Your task to perform on an android device: toggle show notifications on the lock screen Image 0: 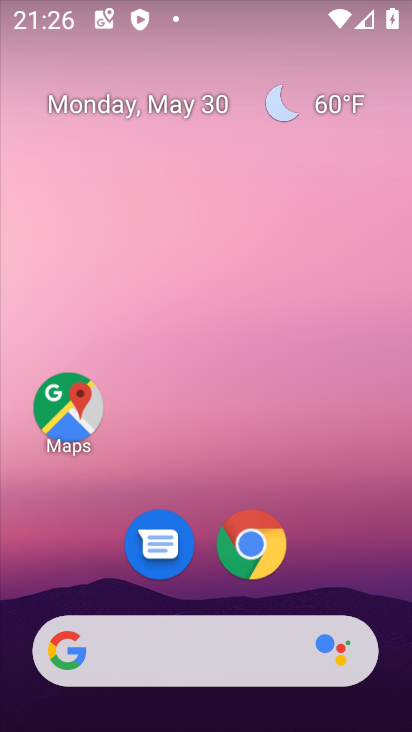
Step 0: drag from (337, 563) to (210, 138)
Your task to perform on an android device: toggle show notifications on the lock screen Image 1: 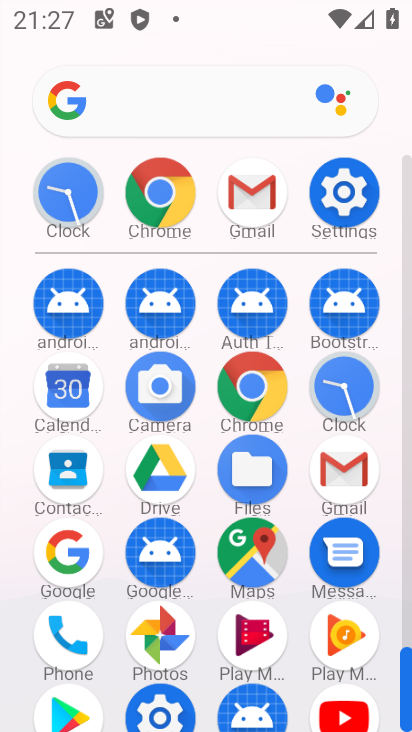
Step 1: click (345, 188)
Your task to perform on an android device: toggle show notifications on the lock screen Image 2: 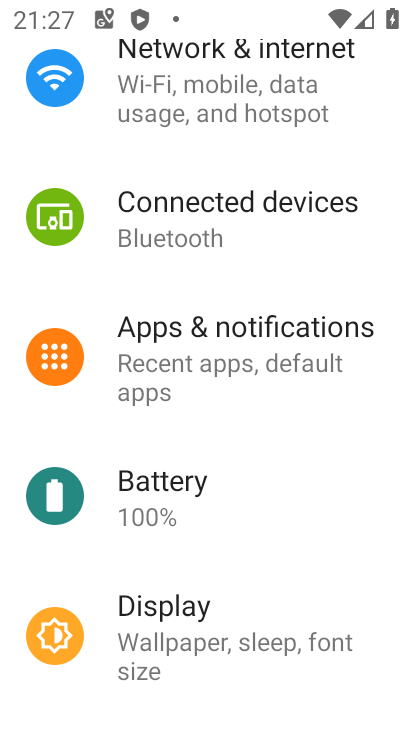
Step 2: click (198, 326)
Your task to perform on an android device: toggle show notifications on the lock screen Image 3: 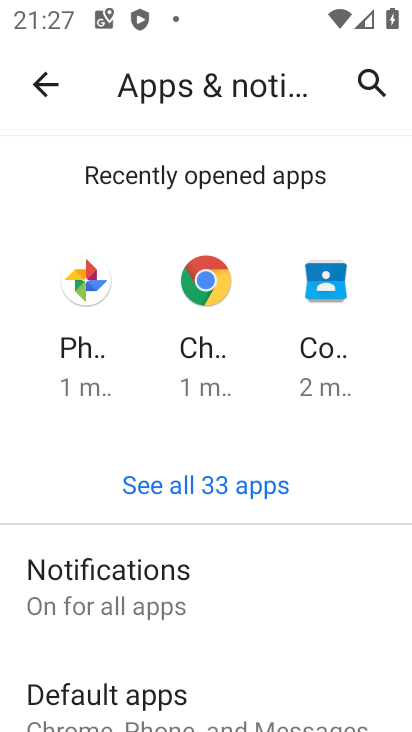
Step 3: click (77, 564)
Your task to perform on an android device: toggle show notifications on the lock screen Image 4: 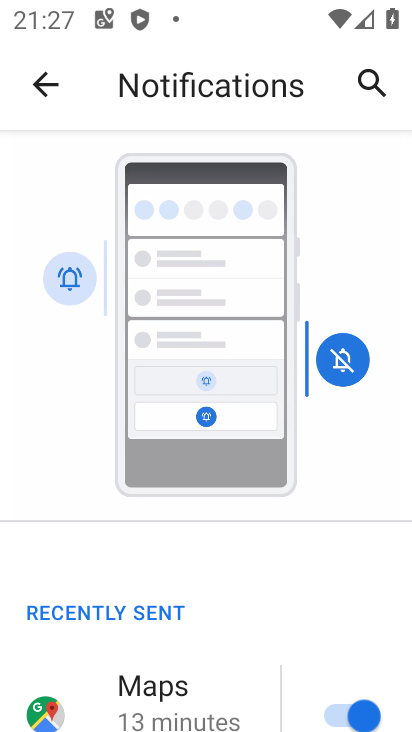
Step 4: drag from (213, 647) to (198, 468)
Your task to perform on an android device: toggle show notifications on the lock screen Image 5: 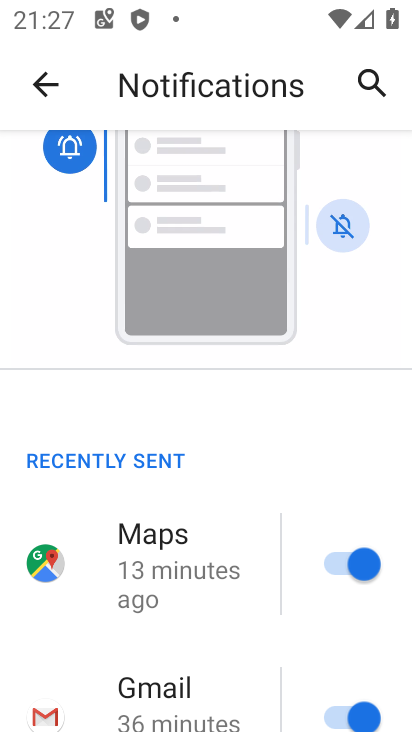
Step 5: drag from (187, 639) to (198, 421)
Your task to perform on an android device: toggle show notifications on the lock screen Image 6: 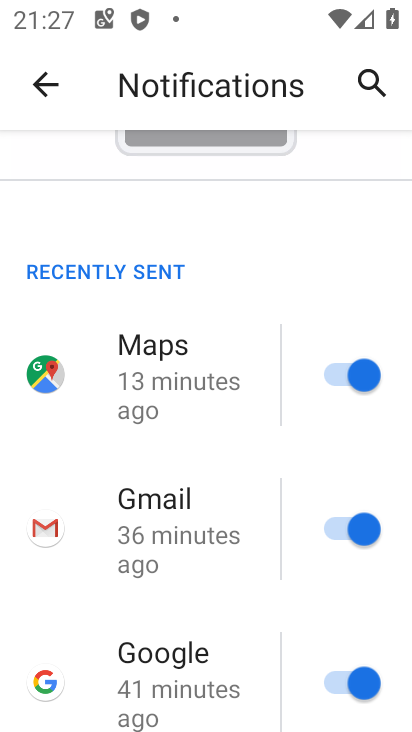
Step 6: drag from (170, 622) to (212, 478)
Your task to perform on an android device: toggle show notifications on the lock screen Image 7: 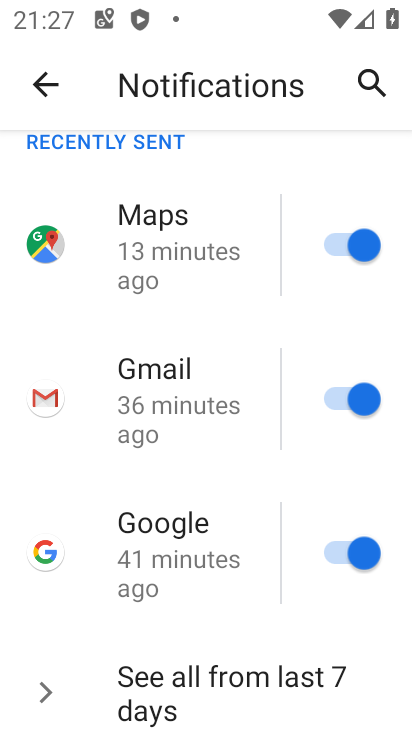
Step 7: drag from (162, 634) to (207, 498)
Your task to perform on an android device: toggle show notifications on the lock screen Image 8: 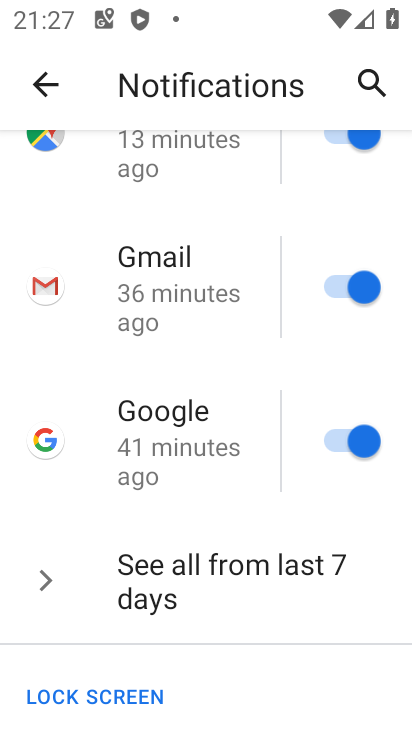
Step 8: drag from (172, 621) to (172, 520)
Your task to perform on an android device: toggle show notifications on the lock screen Image 9: 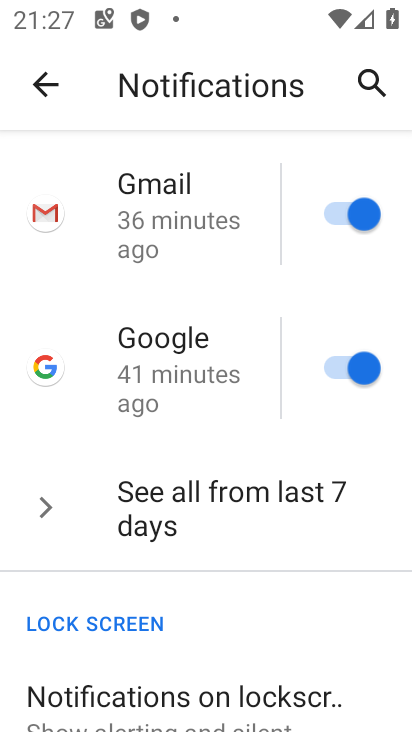
Step 9: drag from (135, 644) to (210, 526)
Your task to perform on an android device: toggle show notifications on the lock screen Image 10: 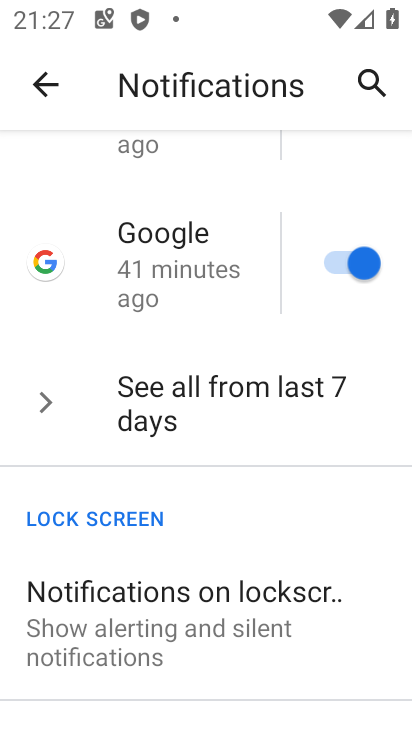
Step 10: drag from (116, 681) to (216, 552)
Your task to perform on an android device: toggle show notifications on the lock screen Image 11: 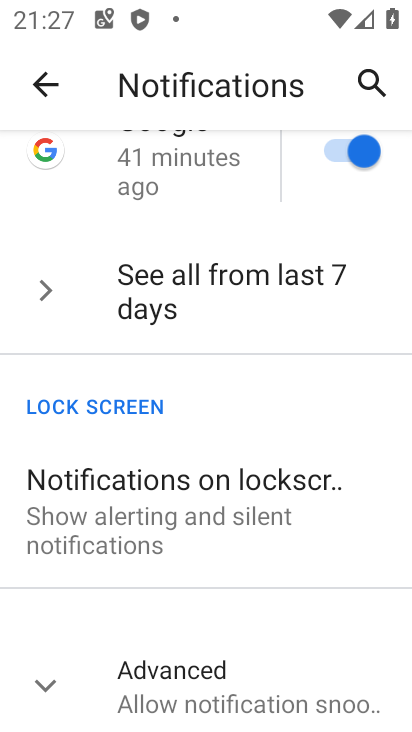
Step 11: click (205, 516)
Your task to perform on an android device: toggle show notifications on the lock screen Image 12: 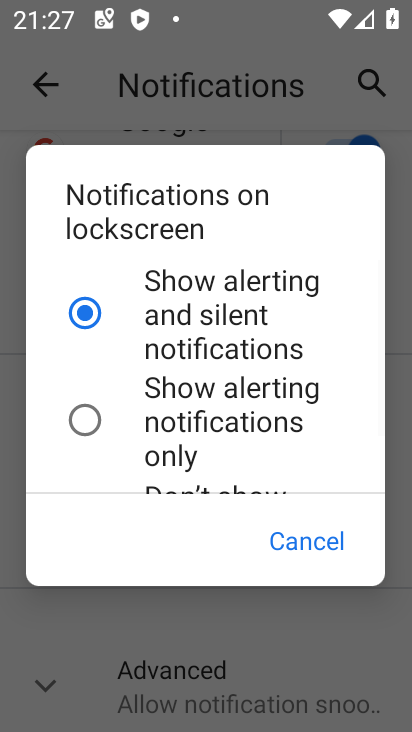
Step 12: drag from (197, 458) to (254, 335)
Your task to perform on an android device: toggle show notifications on the lock screen Image 13: 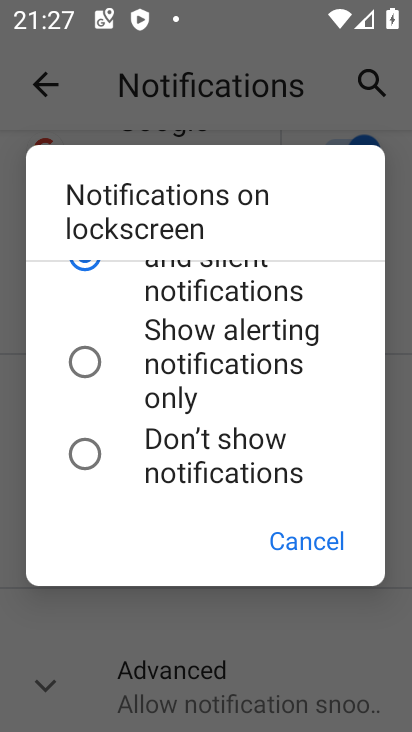
Step 13: click (86, 452)
Your task to perform on an android device: toggle show notifications on the lock screen Image 14: 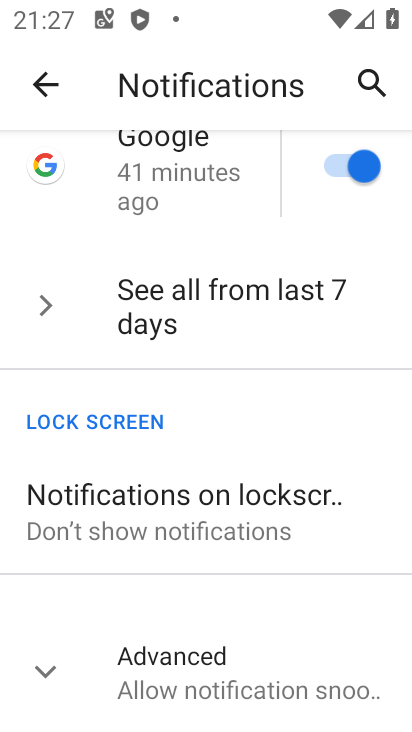
Step 14: task complete